Your task to perform on an android device: toggle notification dots Image 0: 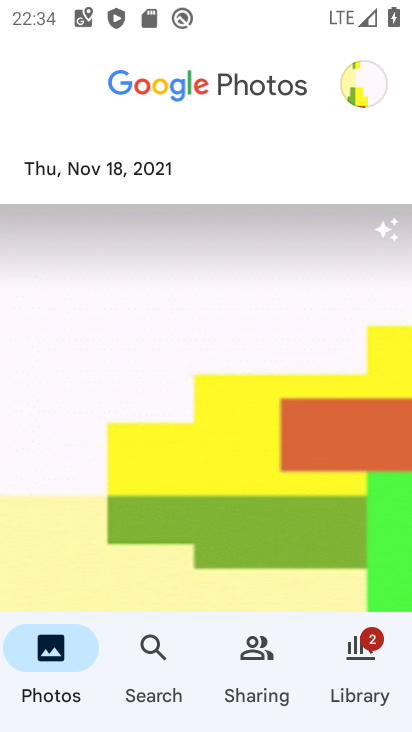
Step 0: press home button
Your task to perform on an android device: toggle notification dots Image 1: 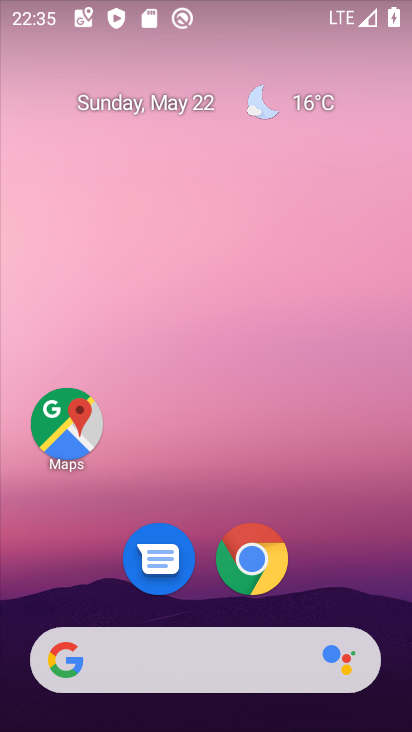
Step 1: drag from (225, 703) to (248, 164)
Your task to perform on an android device: toggle notification dots Image 2: 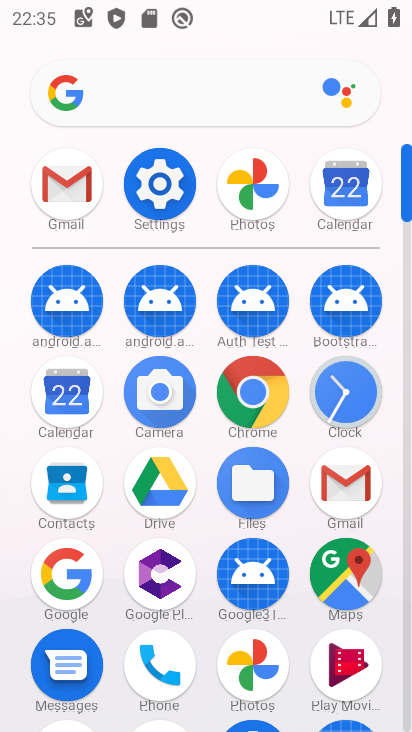
Step 2: click (173, 175)
Your task to perform on an android device: toggle notification dots Image 3: 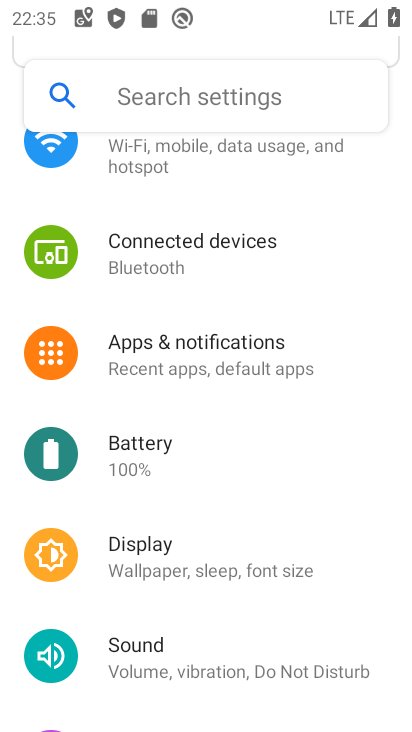
Step 3: click (185, 107)
Your task to perform on an android device: toggle notification dots Image 4: 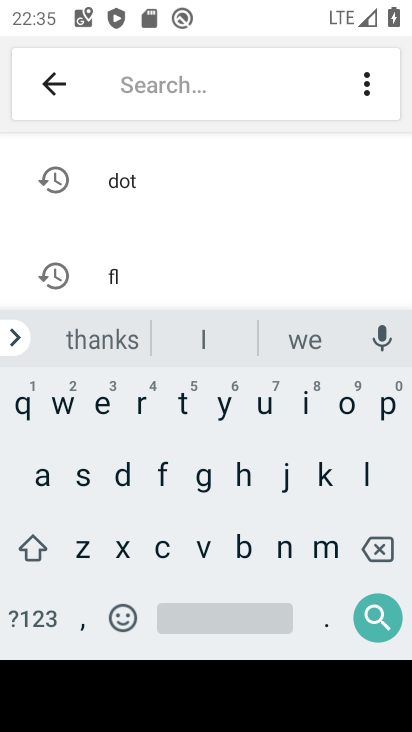
Step 4: click (116, 493)
Your task to perform on an android device: toggle notification dots Image 5: 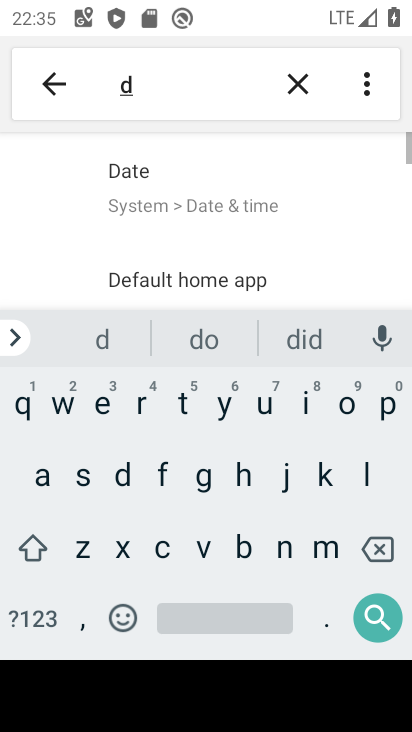
Step 5: click (342, 405)
Your task to perform on an android device: toggle notification dots Image 6: 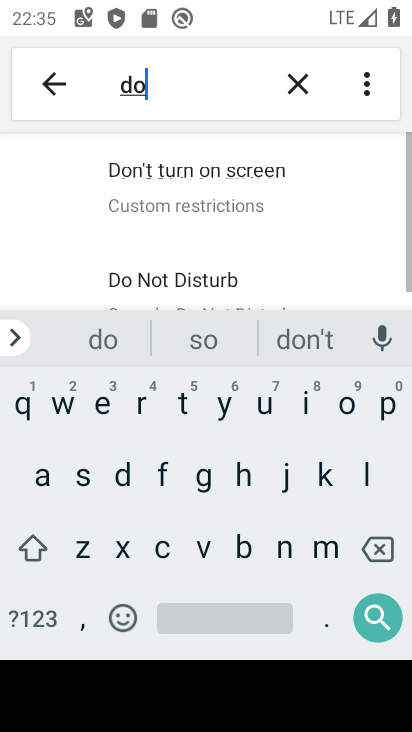
Step 6: click (179, 417)
Your task to perform on an android device: toggle notification dots Image 7: 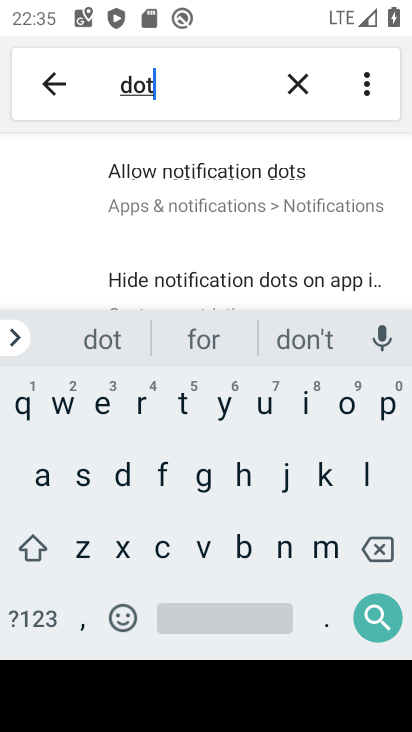
Step 7: click (213, 197)
Your task to perform on an android device: toggle notification dots Image 8: 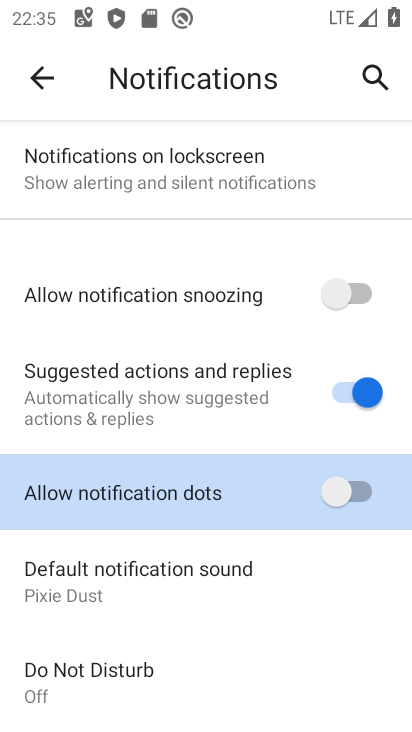
Step 8: task complete